Your task to perform on an android device: remove spam from my inbox in the gmail app Image 0: 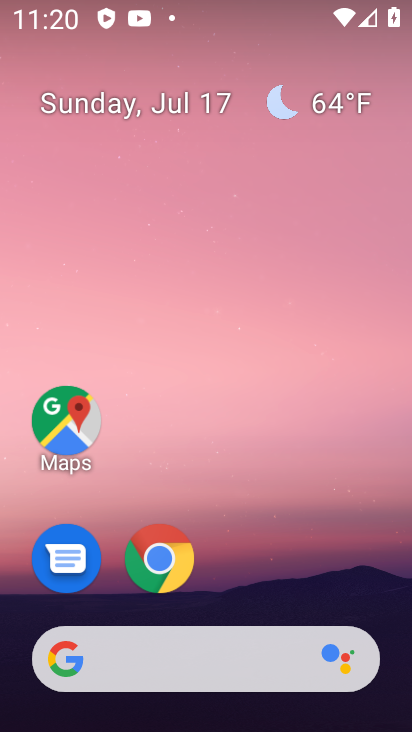
Step 0: drag from (366, 555) to (353, 138)
Your task to perform on an android device: remove spam from my inbox in the gmail app Image 1: 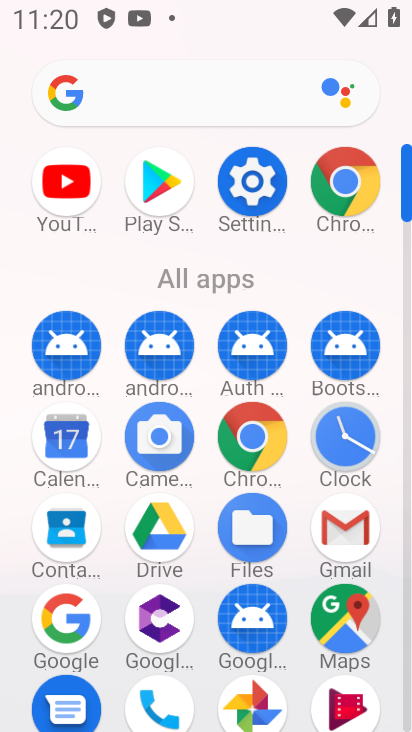
Step 1: click (323, 527)
Your task to perform on an android device: remove spam from my inbox in the gmail app Image 2: 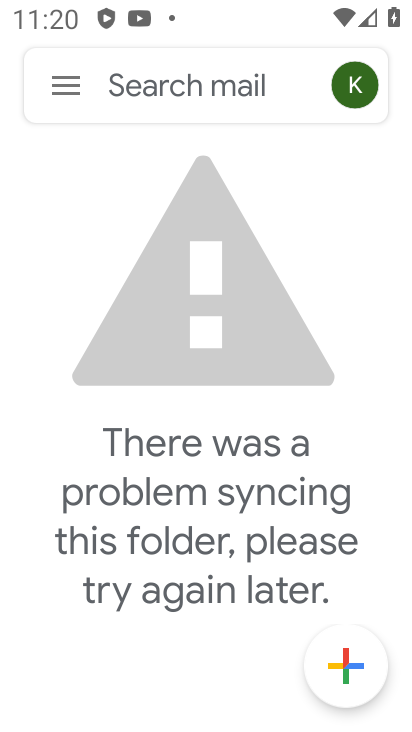
Step 2: click (70, 86)
Your task to perform on an android device: remove spam from my inbox in the gmail app Image 3: 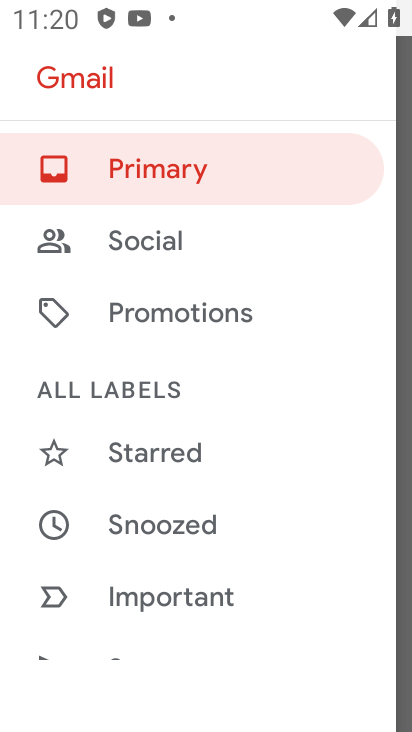
Step 3: drag from (346, 427) to (345, 348)
Your task to perform on an android device: remove spam from my inbox in the gmail app Image 4: 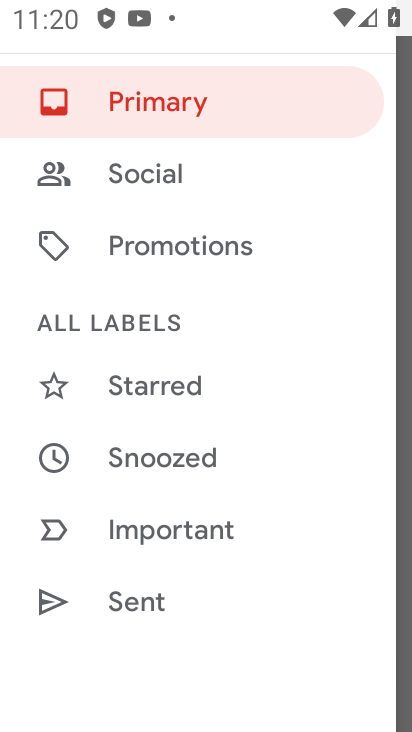
Step 4: drag from (333, 455) to (326, 356)
Your task to perform on an android device: remove spam from my inbox in the gmail app Image 5: 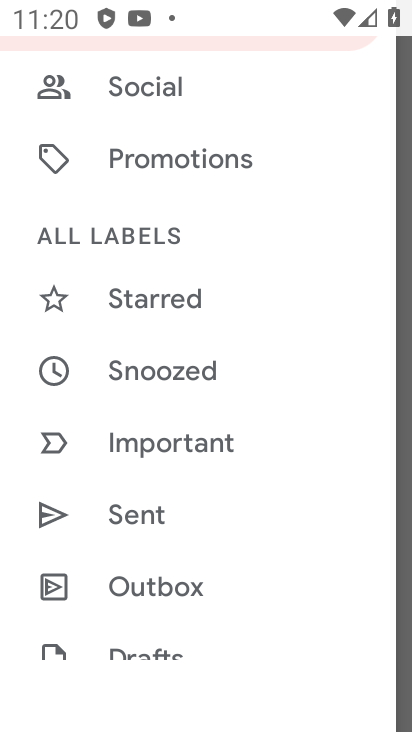
Step 5: drag from (315, 475) to (315, 225)
Your task to perform on an android device: remove spam from my inbox in the gmail app Image 6: 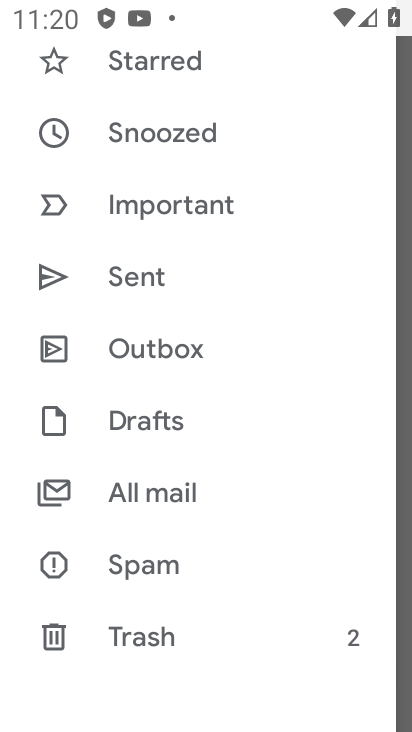
Step 6: drag from (296, 441) to (288, 283)
Your task to perform on an android device: remove spam from my inbox in the gmail app Image 7: 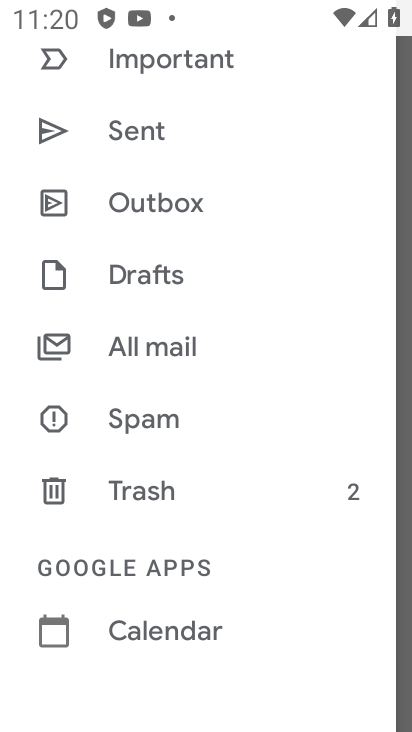
Step 7: click (162, 417)
Your task to perform on an android device: remove spam from my inbox in the gmail app Image 8: 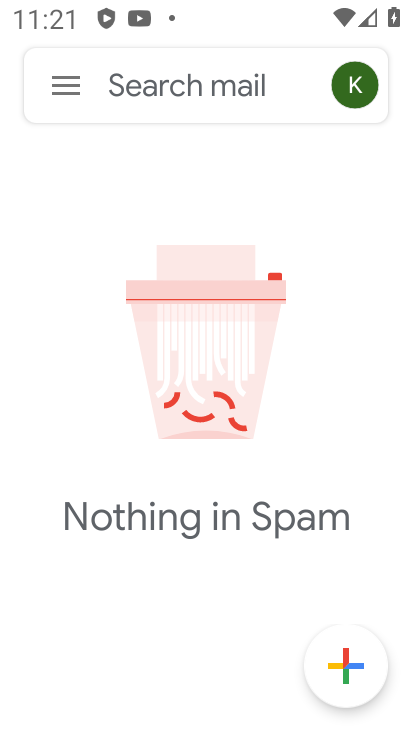
Step 8: task complete